Your task to perform on an android device: clear history in the chrome app Image 0: 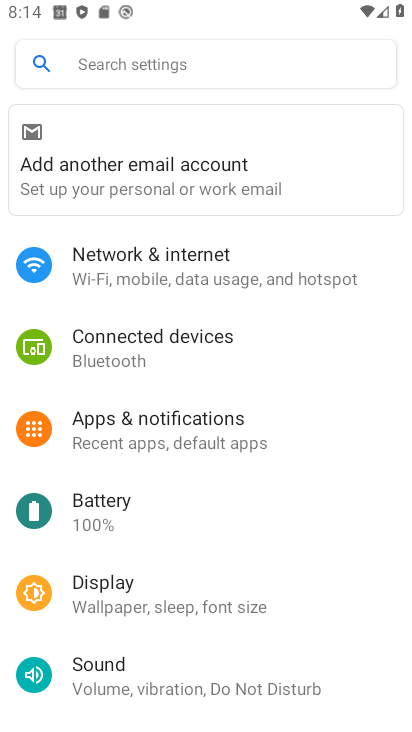
Step 0: press home button
Your task to perform on an android device: clear history in the chrome app Image 1: 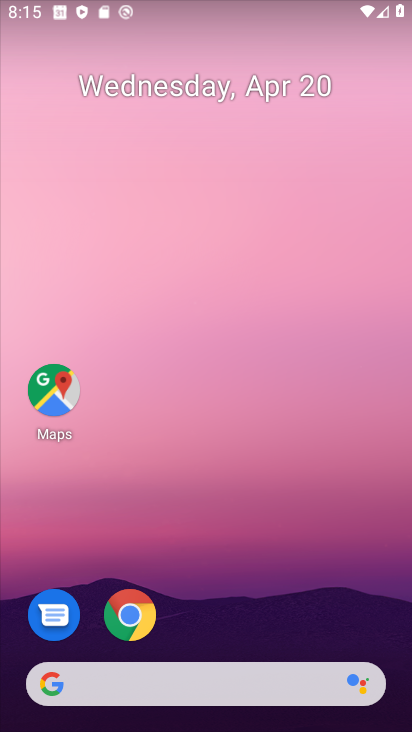
Step 1: click (132, 614)
Your task to perform on an android device: clear history in the chrome app Image 2: 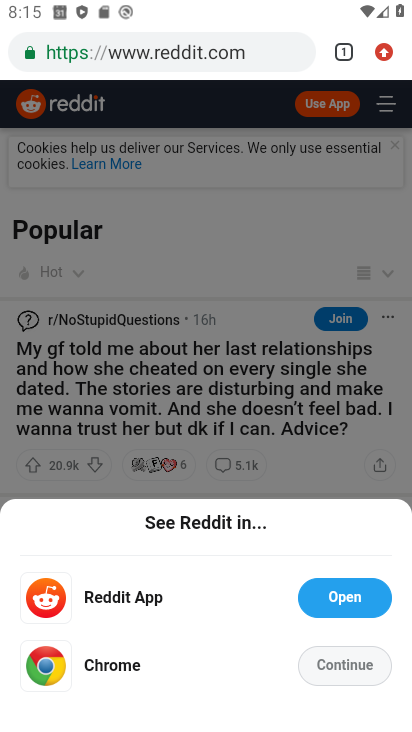
Step 2: click (385, 51)
Your task to perform on an android device: clear history in the chrome app Image 3: 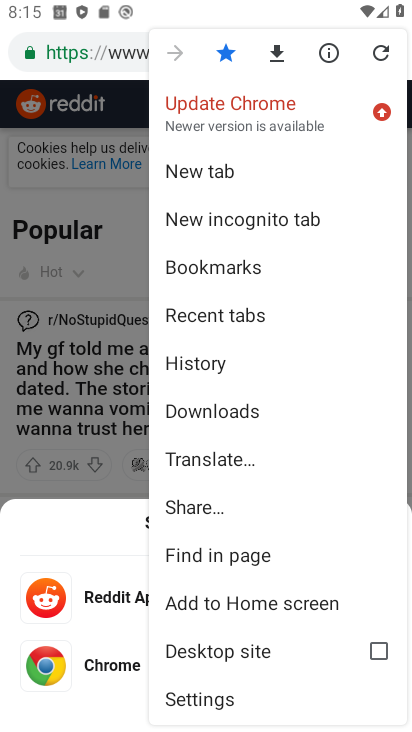
Step 3: click (216, 368)
Your task to perform on an android device: clear history in the chrome app Image 4: 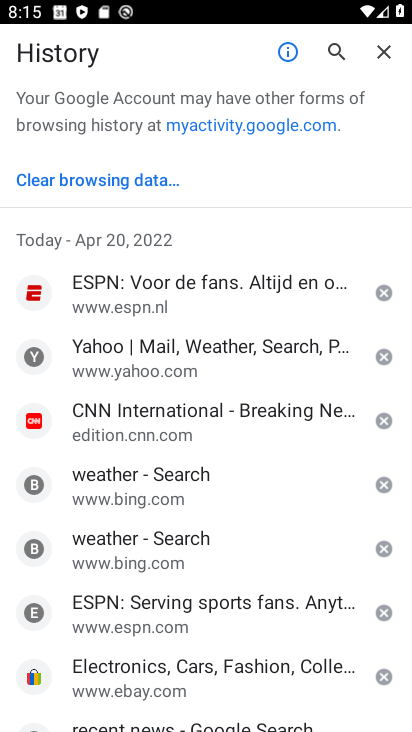
Step 4: click (94, 180)
Your task to perform on an android device: clear history in the chrome app Image 5: 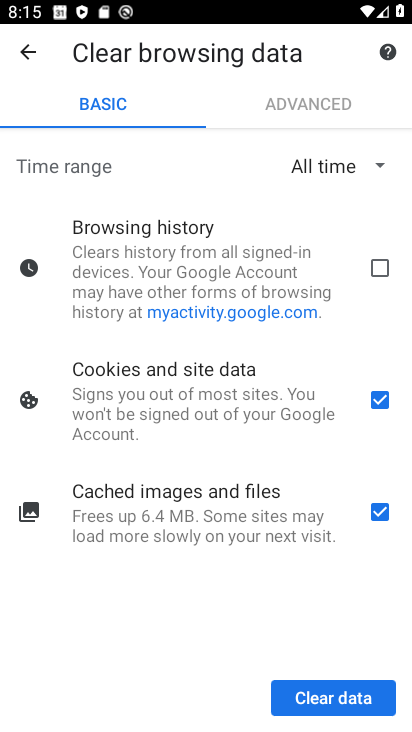
Step 5: click (381, 267)
Your task to perform on an android device: clear history in the chrome app Image 6: 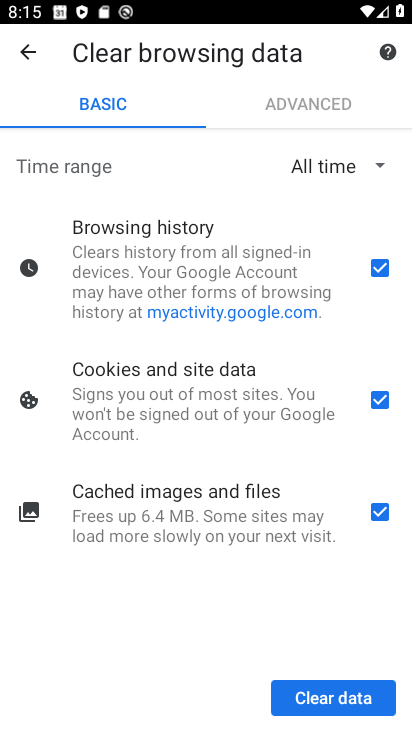
Step 6: click (360, 703)
Your task to perform on an android device: clear history in the chrome app Image 7: 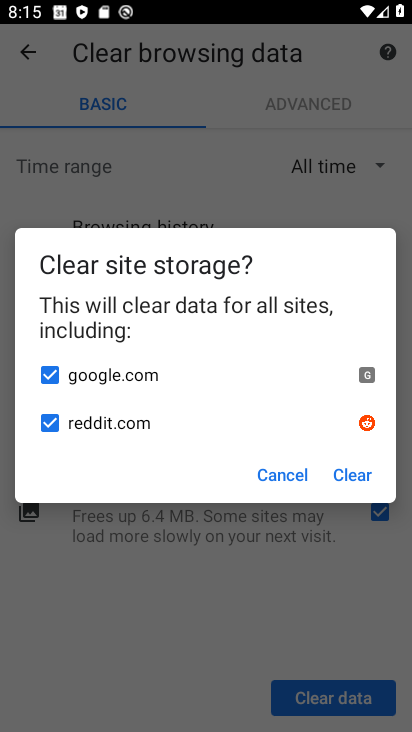
Step 7: click (353, 476)
Your task to perform on an android device: clear history in the chrome app Image 8: 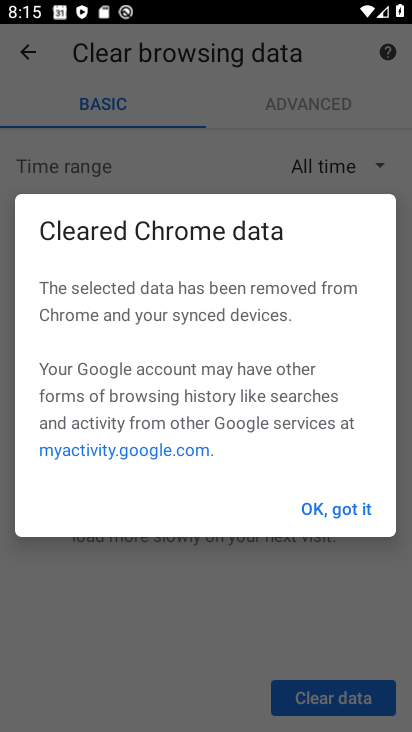
Step 8: click (350, 505)
Your task to perform on an android device: clear history in the chrome app Image 9: 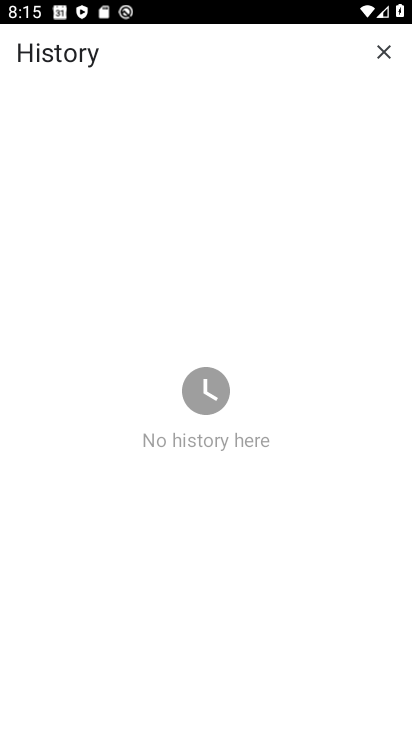
Step 9: task complete